Your task to perform on an android device: Open Chrome and go to the settings page Image 0: 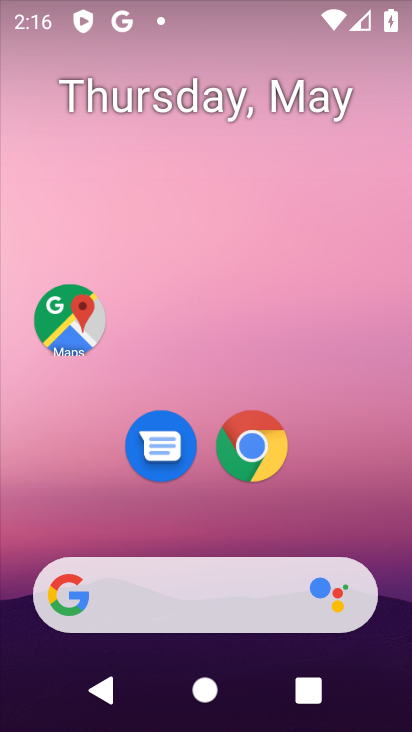
Step 0: drag from (229, 515) to (240, 137)
Your task to perform on an android device: Open Chrome and go to the settings page Image 1: 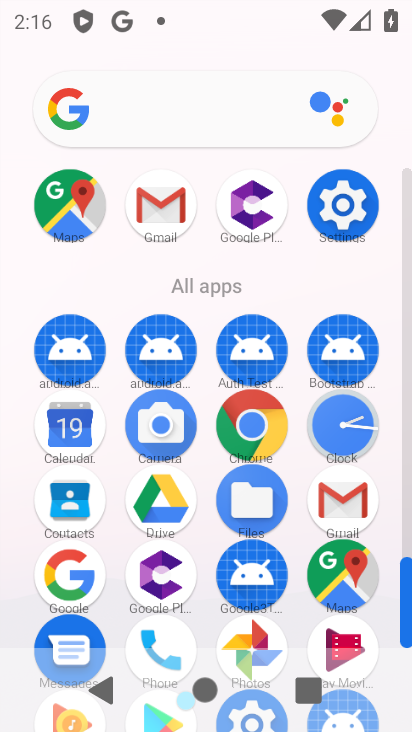
Step 1: click (239, 422)
Your task to perform on an android device: Open Chrome and go to the settings page Image 2: 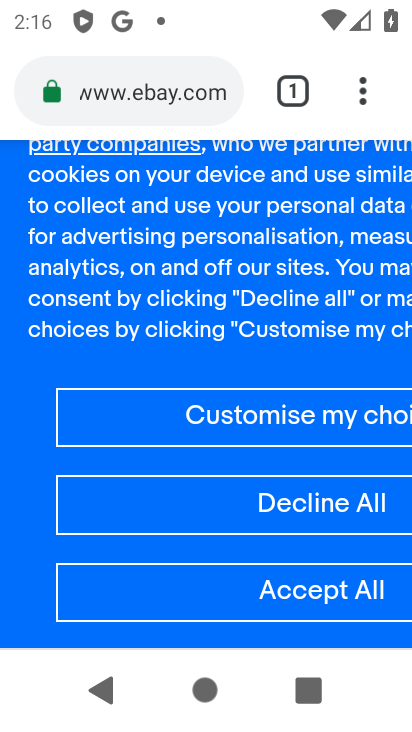
Step 2: click (356, 98)
Your task to perform on an android device: Open Chrome and go to the settings page Image 3: 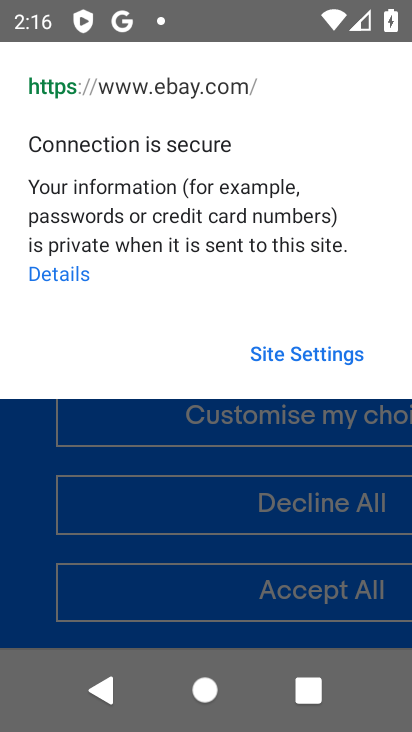
Step 3: click (159, 489)
Your task to perform on an android device: Open Chrome and go to the settings page Image 4: 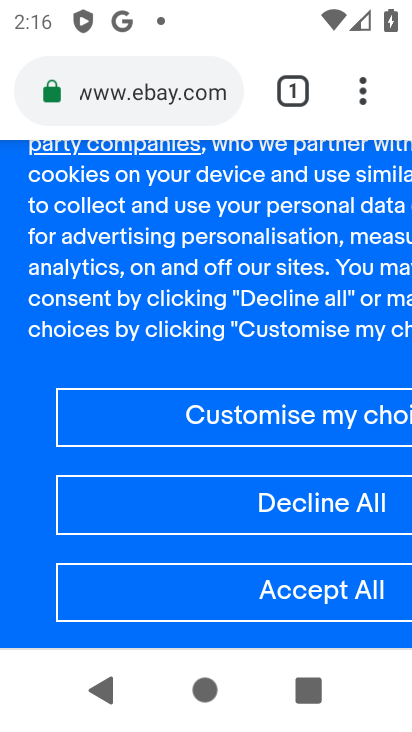
Step 4: click (349, 86)
Your task to perform on an android device: Open Chrome and go to the settings page Image 5: 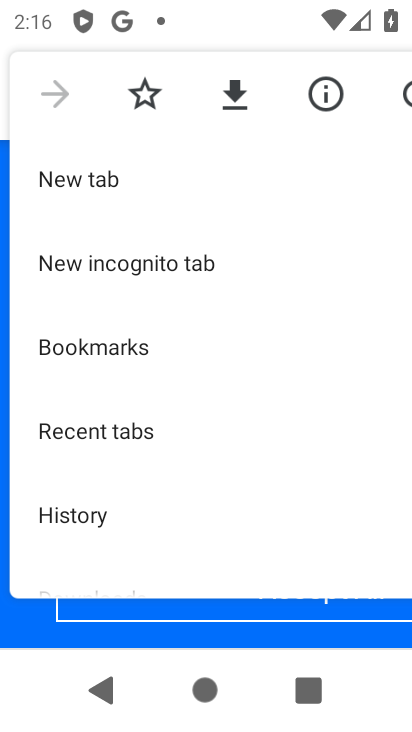
Step 5: drag from (189, 517) to (198, 285)
Your task to perform on an android device: Open Chrome and go to the settings page Image 6: 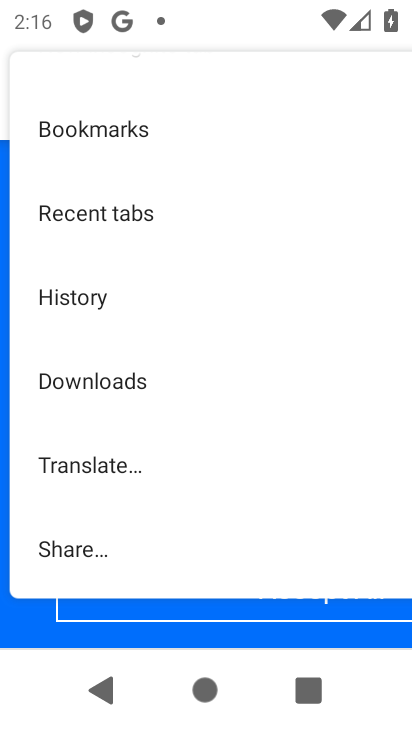
Step 6: drag from (160, 510) to (179, 237)
Your task to perform on an android device: Open Chrome and go to the settings page Image 7: 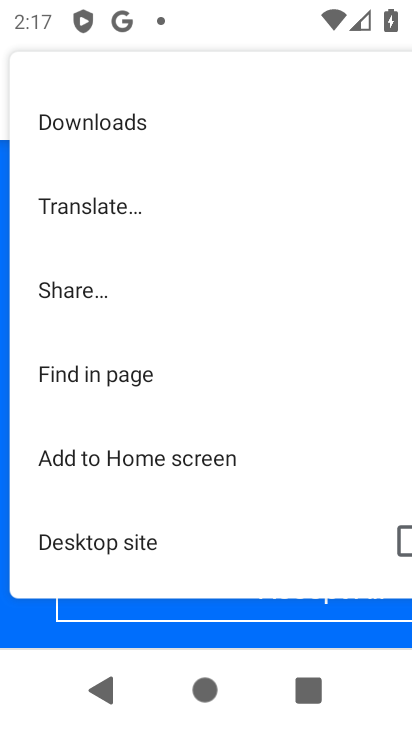
Step 7: drag from (257, 554) to (224, 113)
Your task to perform on an android device: Open Chrome and go to the settings page Image 8: 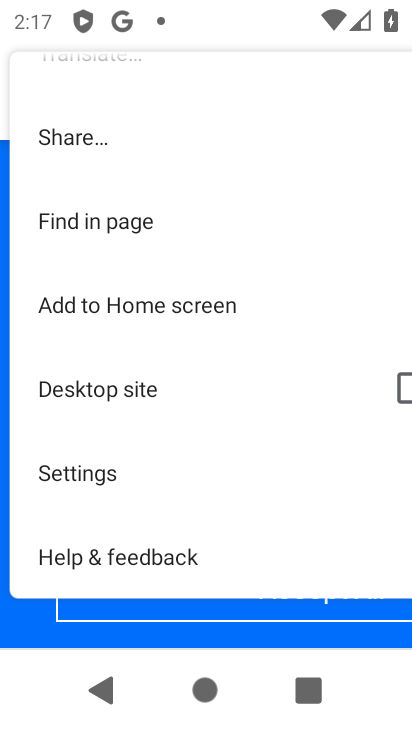
Step 8: click (141, 443)
Your task to perform on an android device: Open Chrome and go to the settings page Image 9: 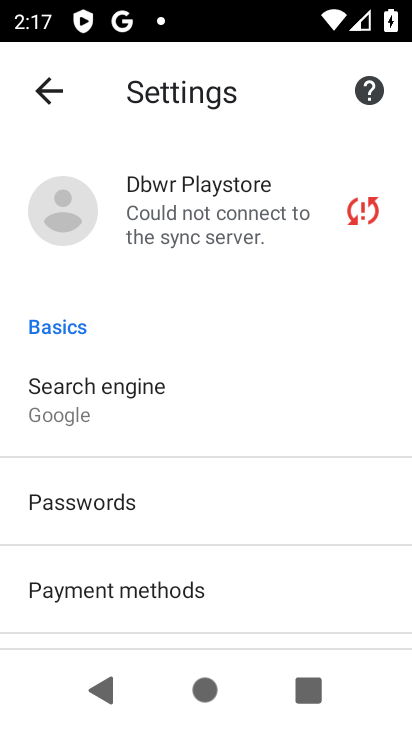
Step 9: task complete